Your task to perform on an android device: Open Maps and search for coffee Image 0: 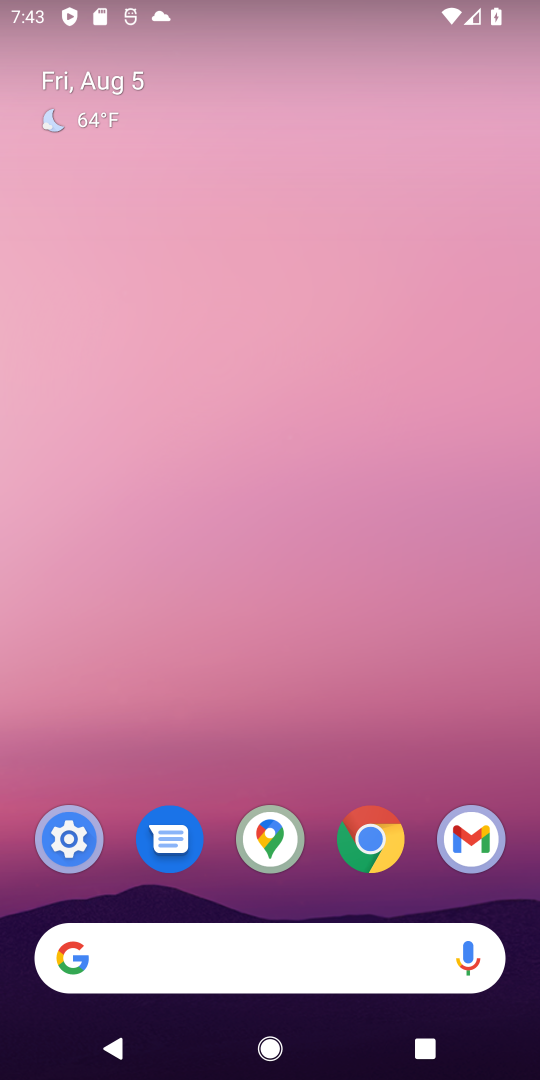
Step 0: drag from (338, 867) to (346, 75)
Your task to perform on an android device: Open Maps and search for coffee Image 1: 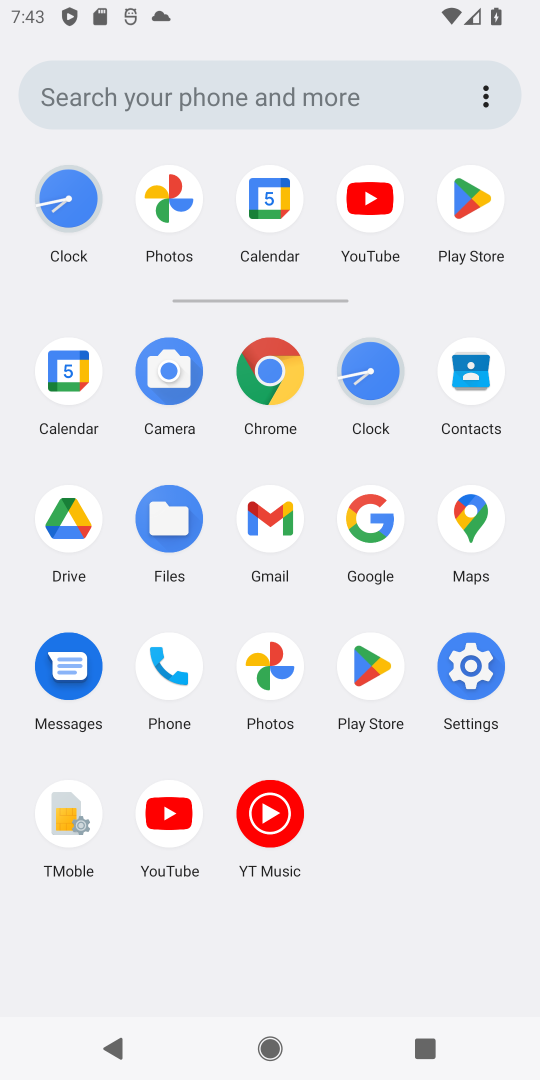
Step 1: click (473, 514)
Your task to perform on an android device: Open Maps and search for coffee Image 2: 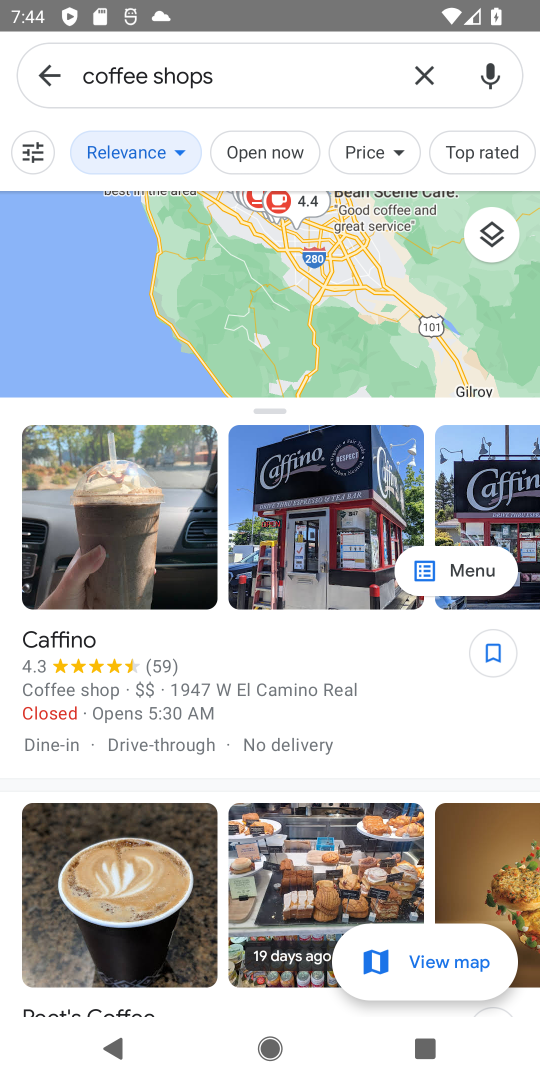
Step 2: task complete